Your task to perform on an android device: Go to Amazon Image 0: 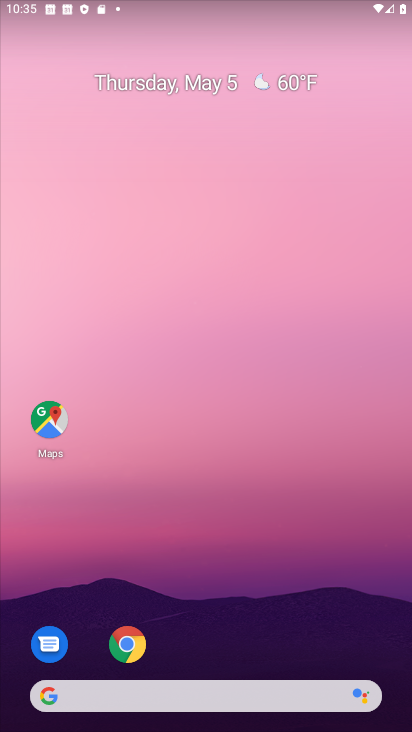
Step 0: drag from (191, 663) to (263, 100)
Your task to perform on an android device: Go to Amazon Image 1: 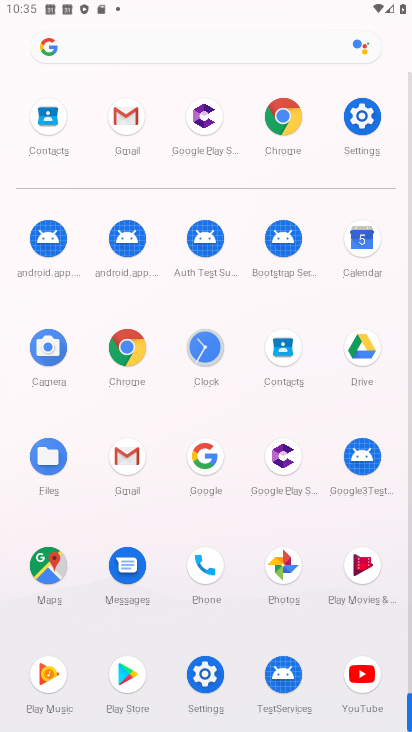
Step 1: click (285, 121)
Your task to perform on an android device: Go to Amazon Image 2: 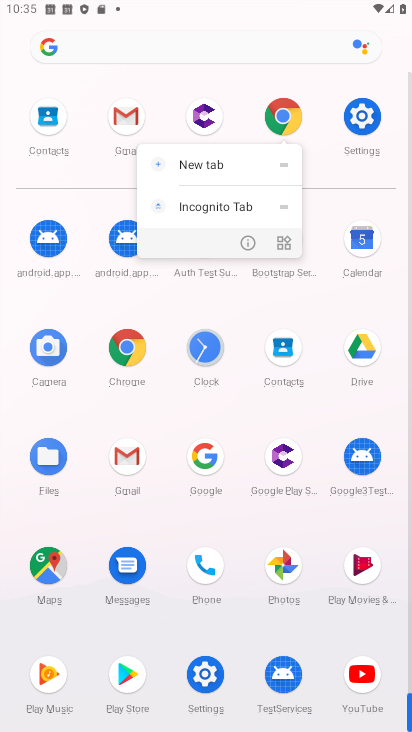
Step 2: click (247, 233)
Your task to perform on an android device: Go to Amazon Image 3: 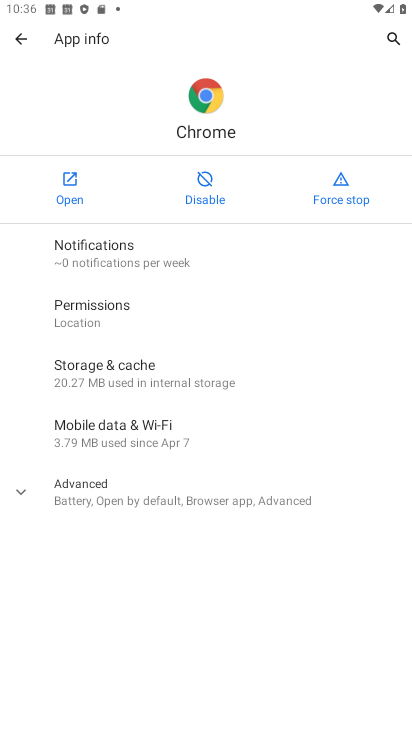
Step 3: click (66, 189)
Your task to perform on an android device: Go to Amazon Image 4: 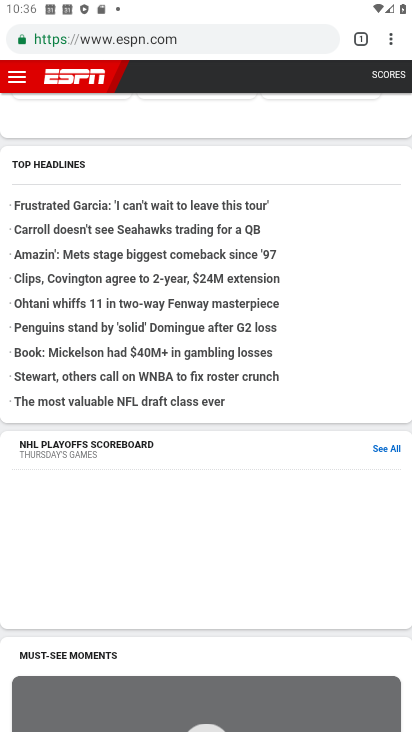
Step 4: click (362, 42)
Your task to perform on an android device: Go to Amazon Image 5: 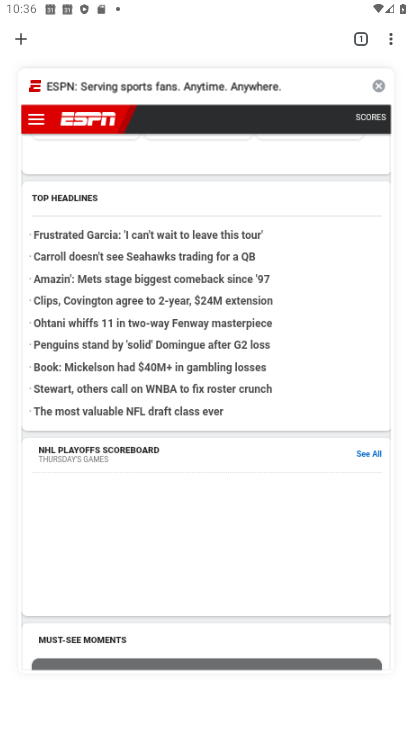
Step 5: click (237, 207)
Your task to perform on an android device: Go to Amazon Image 6: 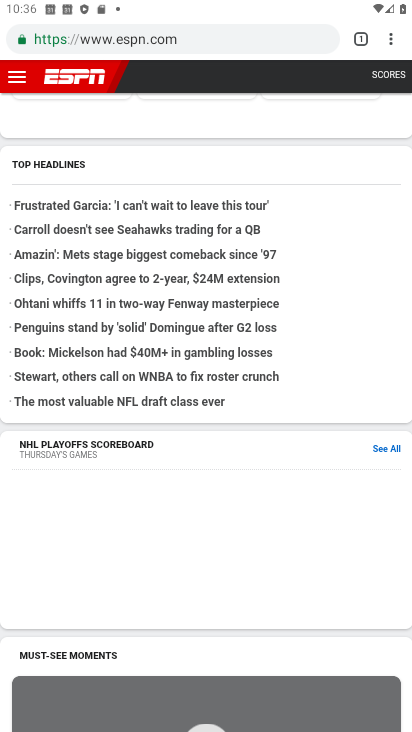
Step 6: drag from (239, 534) to (280, 266)
Your task to perform on an android device: Go to Amazon Image 7: 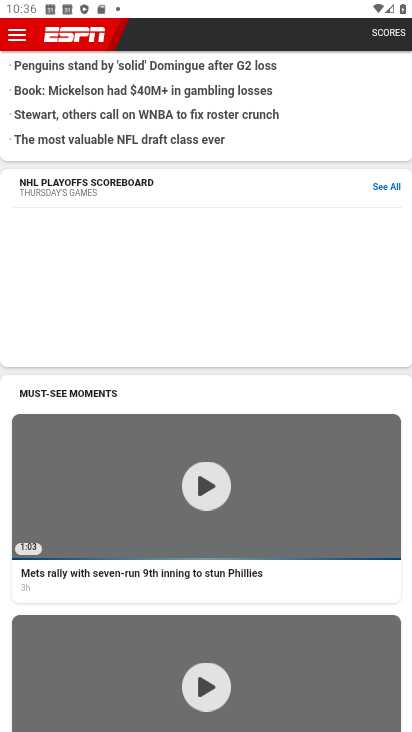
Step 7: drag from (251, 585) to (326, 149)
Your task to perform on an android device: Go to Amazon Image 8: 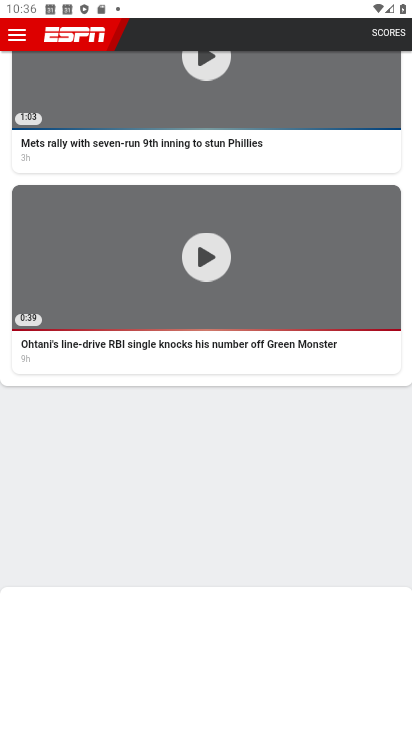
Step 8: drag from (191, 662) to (276, 298)
Your task to perform on an android device: Go to Amazon Image 9: 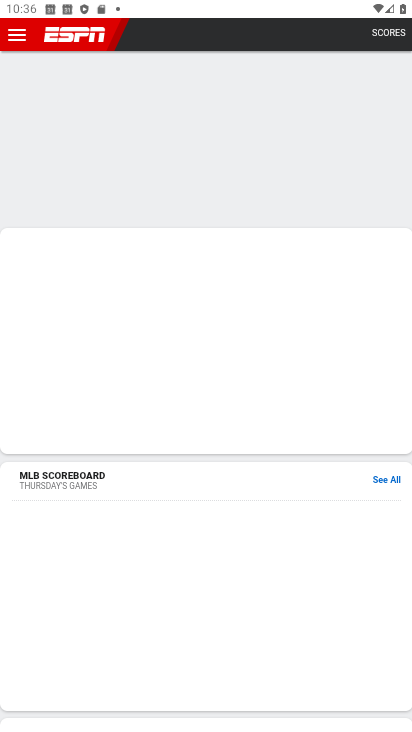
Step 9: drag from (257, 136) to (245, 713)
Your task to perform on an android device: Go to Amazon Image 10: 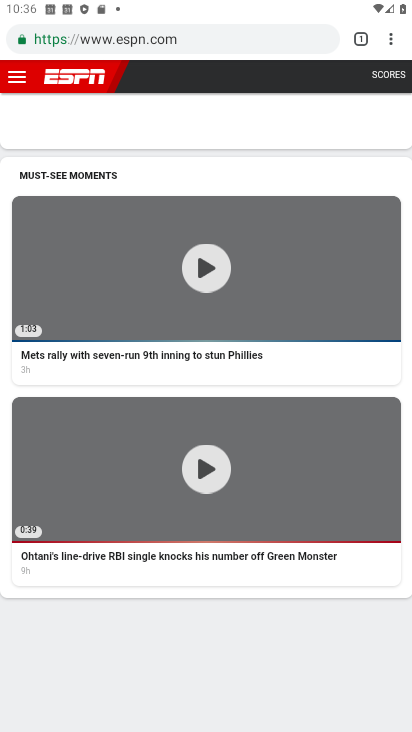
Step 10: drag from (244, 122) to (305, 559)
Your task to perform on an android device: Go to Amazon Image 11: 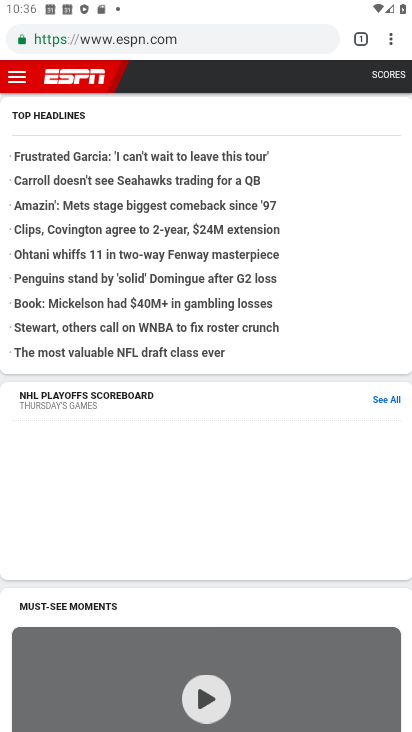
Step 11: click (353, 40)
Your task to perform on an android device: Go to Amazon Image 12: 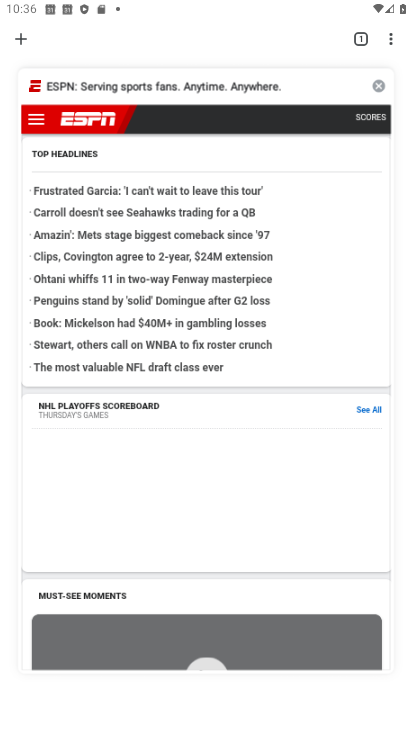
Step 12: click (242, 151)
Your task to perform on an android device: Go to Amazon Image 13: 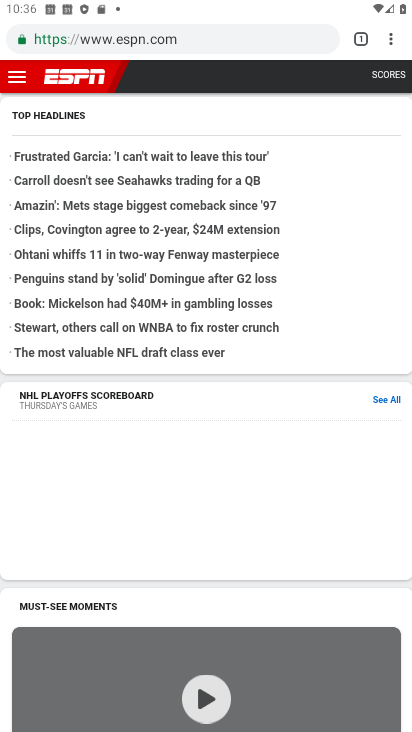
Step 13: drag from (214, 121) to (296, 394)
Your task to perform on an android device: Go to Amazon Image 14: 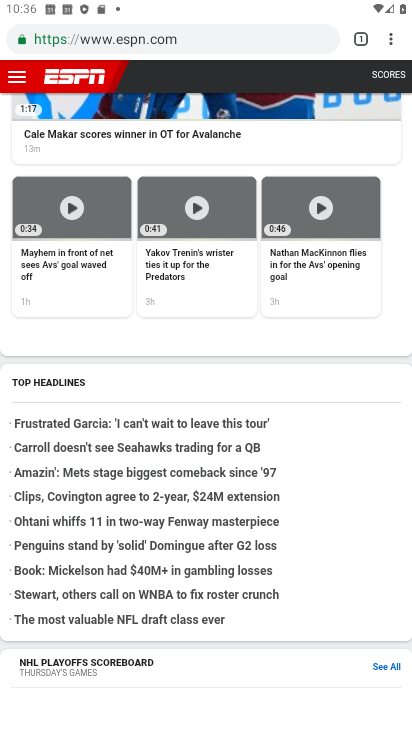
Step 14: drag from (213, 379) to (299, 681)
Your task to perform on an android device: Go to Amazon Image 15: 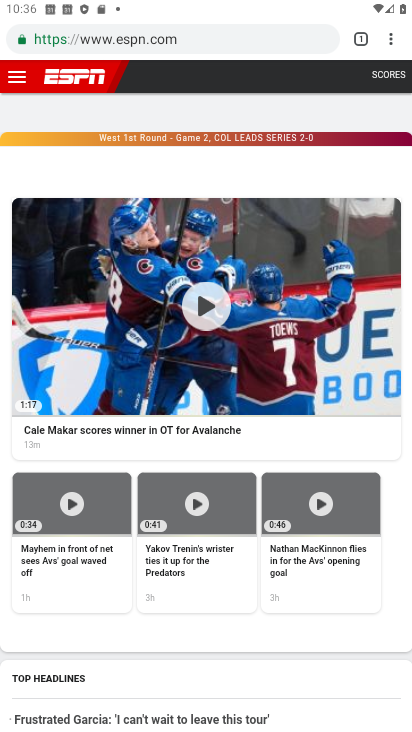
Step 15: drag from (219, 139) to (342, 476)
Your task to perform on an android device: Go to Amazon Image 16: 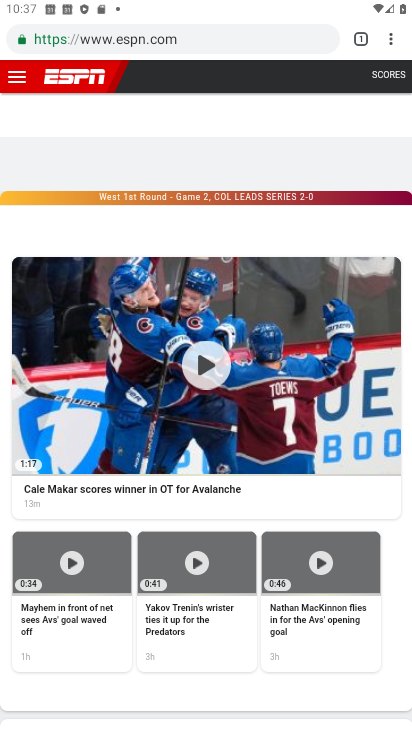
Step 16: drag from (182, 683) to (229, 208)
Your task to perform on an android device: Go to Amazon Image 17: 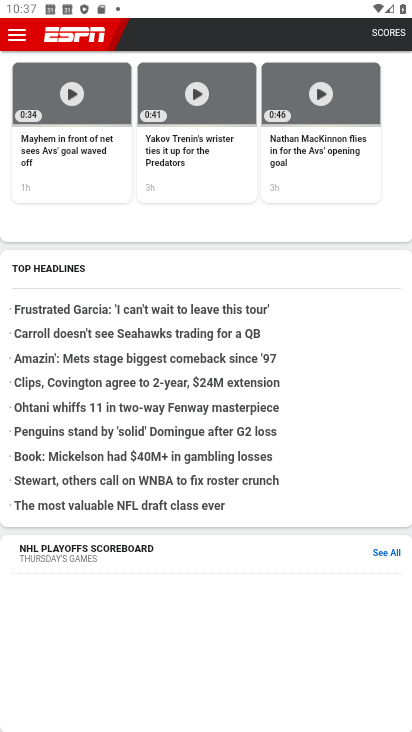
Step 17: drag from (221, 125) to (296, 684)
Your task to perform on an android device: Go to Amazon Image 18: 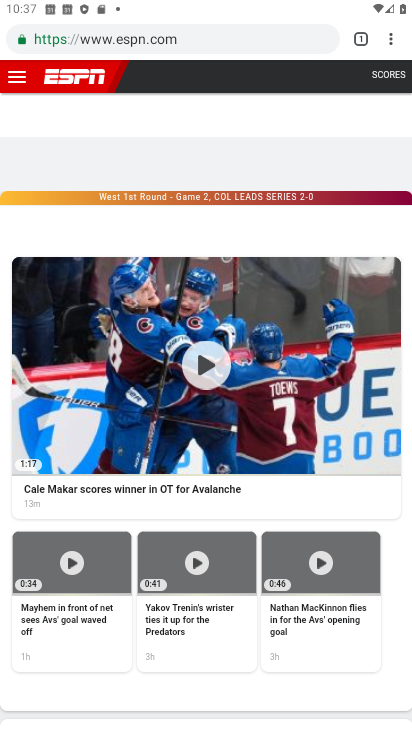
Step 18: drag from (182, 669) to (189, 349)
Your task to perform on an android device: Go to Amazon Image 19: 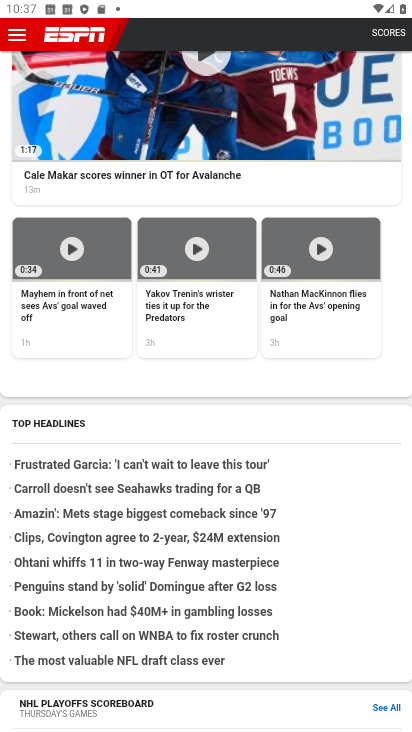
Step 19: drag from (189, 377) to (158, 68)
Your task to perform on an android device: Go to Amazon Image 20: 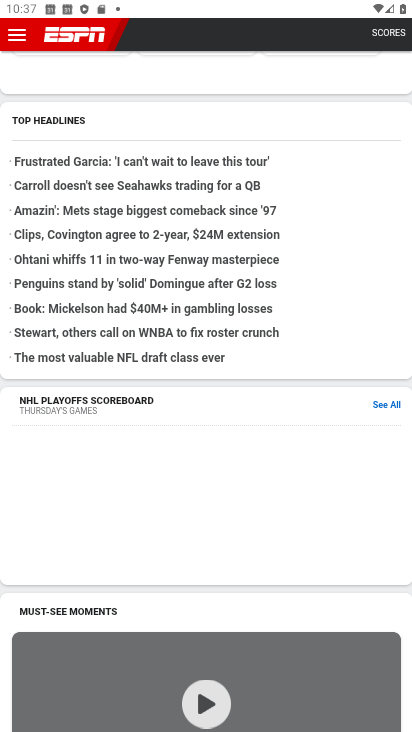
Step 20: drag from (148, 191) to (408, 209)
Your task to perform on an android device: Go to Amazon Image 21: 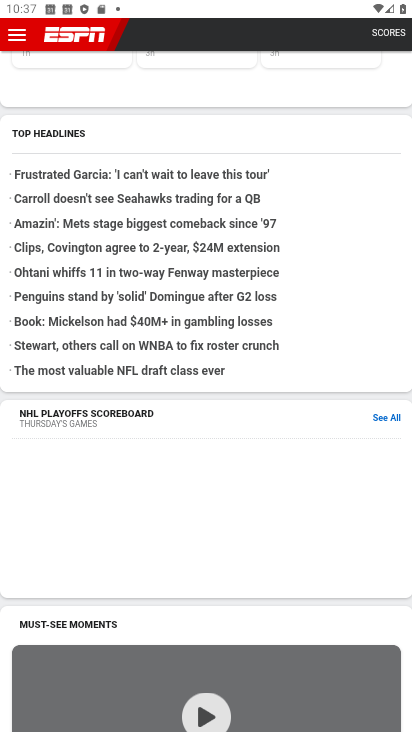
Step 21: click (155, 40)
Your task to perform on an android device: Go to Amazon Image 22: 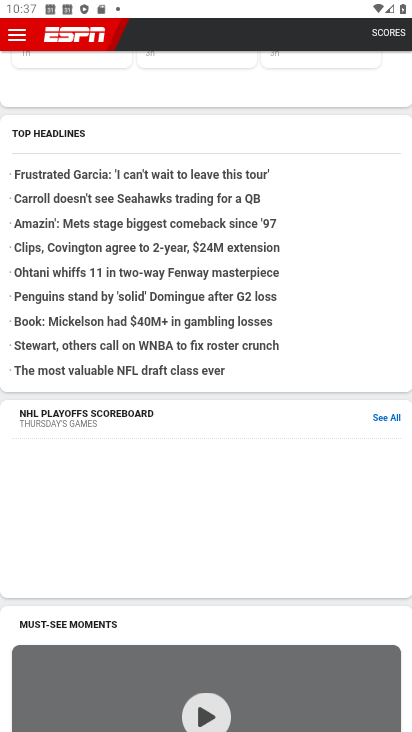
Step 22: drag from (209, 249) to (380, 726)
Your task to perform on an android device: Go to Amazon Image 23: 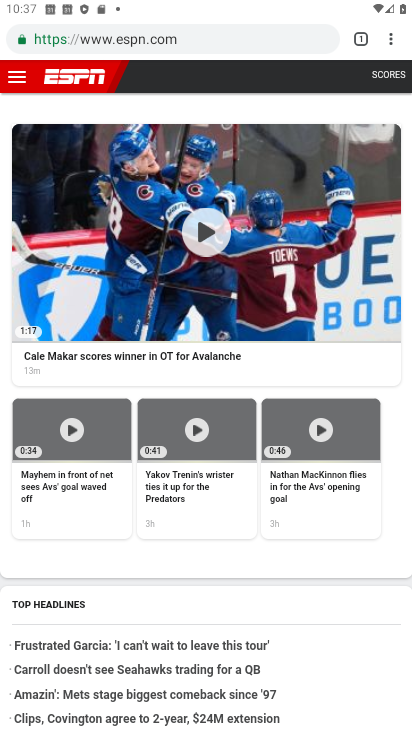
Step 23: click (142, 34)
Your task to perform on an android device: Go to Amazon Image 24: 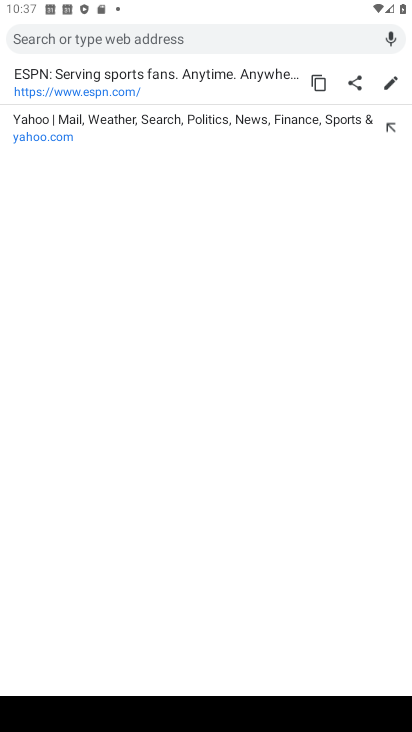
Step 24: type "amazon"
Your task to perform on an android device: Go to Amazon Image 25: 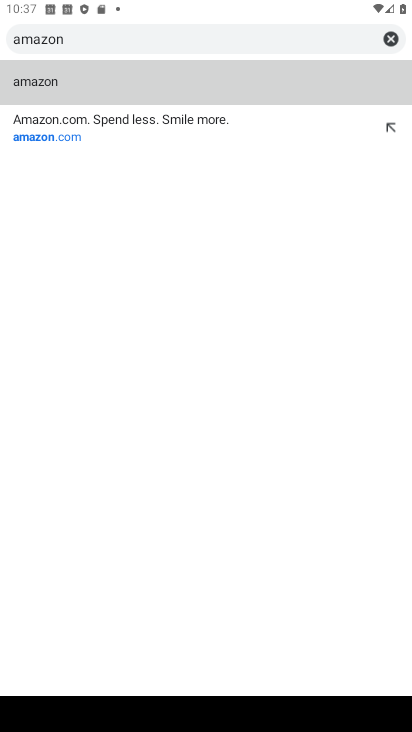
Step 25: click (25, 84)
Your task to perform on an android device: Go to Amazon Image 26: 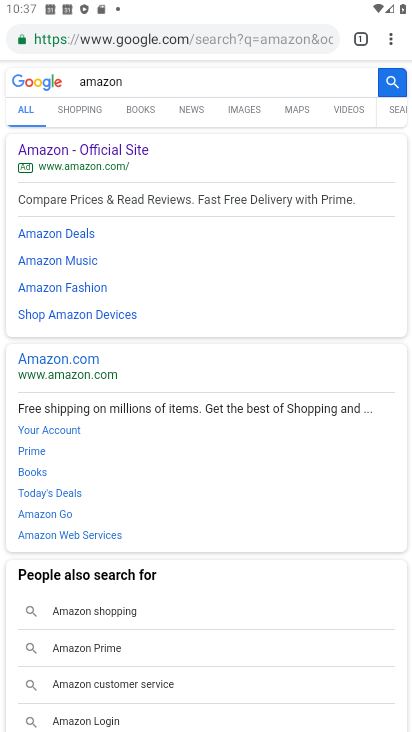
Step 26: click (71, 147)
Your task to perform on an android device: Go to Amazon Image 27: 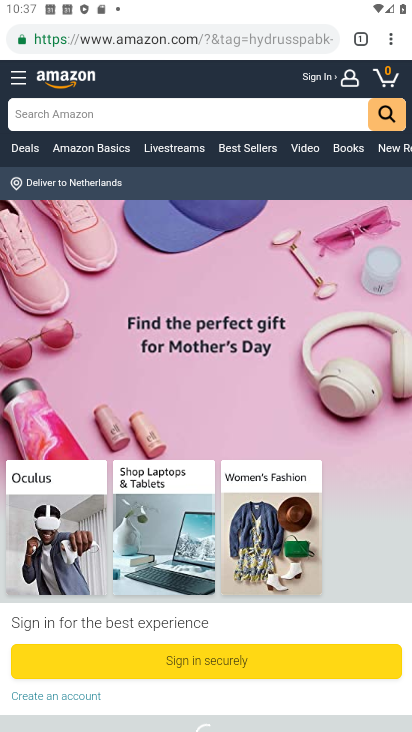
Step 27: task complete